Your task to perform on an android device: Turn on the flashlight Image 0: 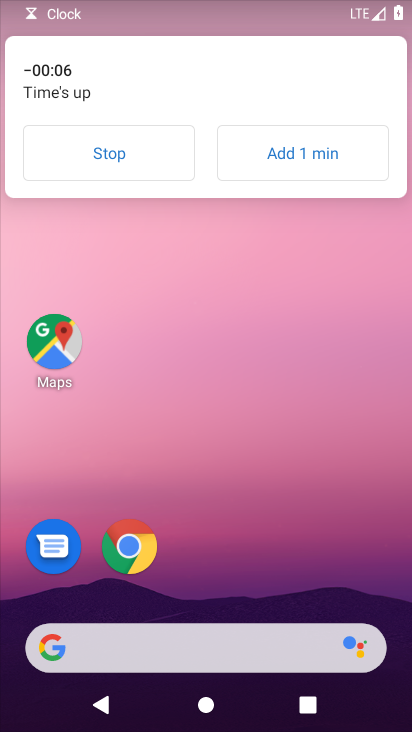
Step 0: click (148, 150)
Your task to perform on an android device: Turn on the flashlight Image 1: 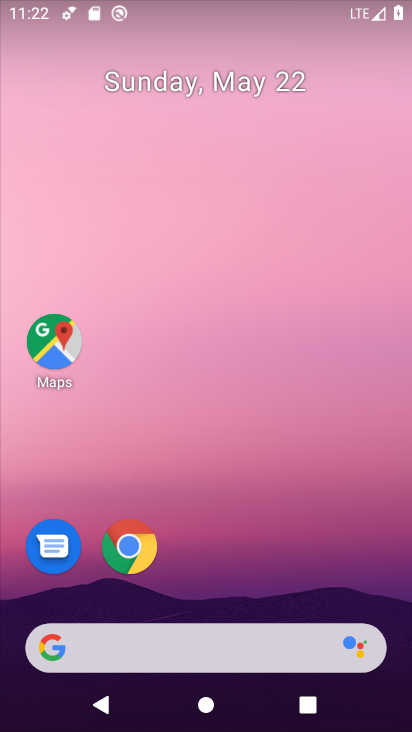
Step 1: task complete